Your task to perform on an android device: Open Amazon Image 0: 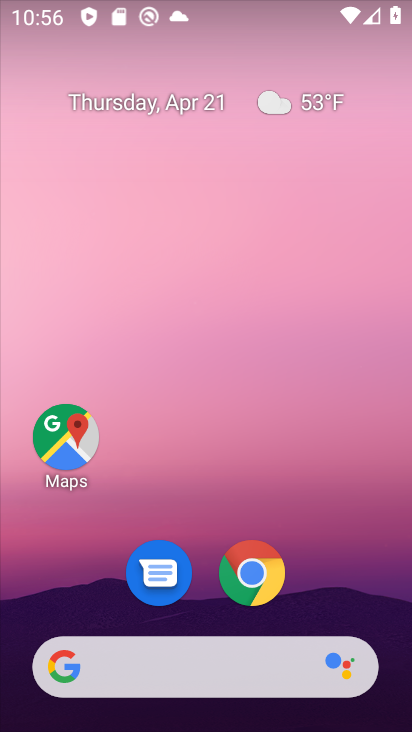
Step 0: drag from (346, 593) to (364, 81)
Your task to perform on an android device: Open Amazon Image 1: 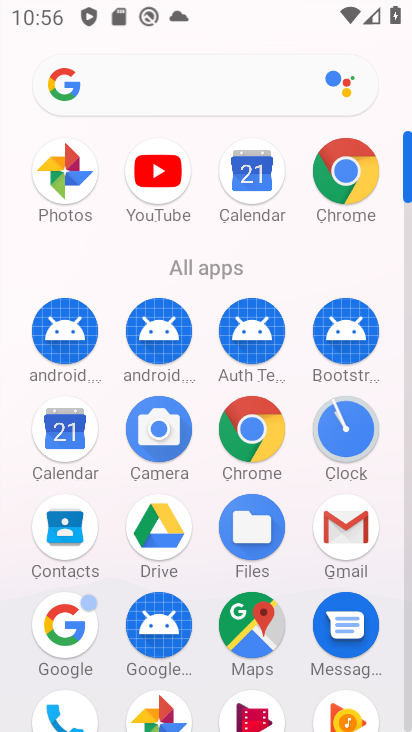
Step 1: click (250, 435)
Your task to perform on an android device: Open Amazon Image 2: 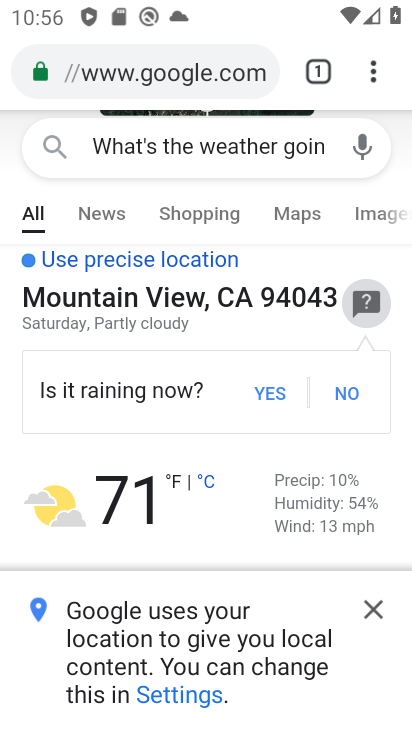
Step 2: drag from (373, 73) to (11, 257)
Your task to perform on an android device: Open Amazon Image 3: 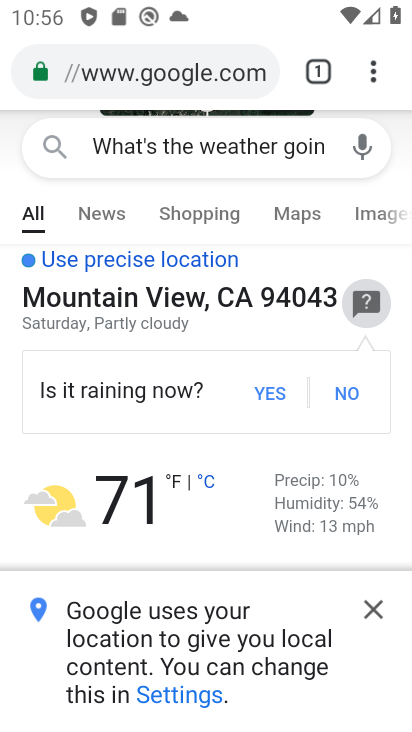
Step 3: drag from (381, 82) to (132, 143)
Your task to perform on an android device: Open Amazon Image 4: 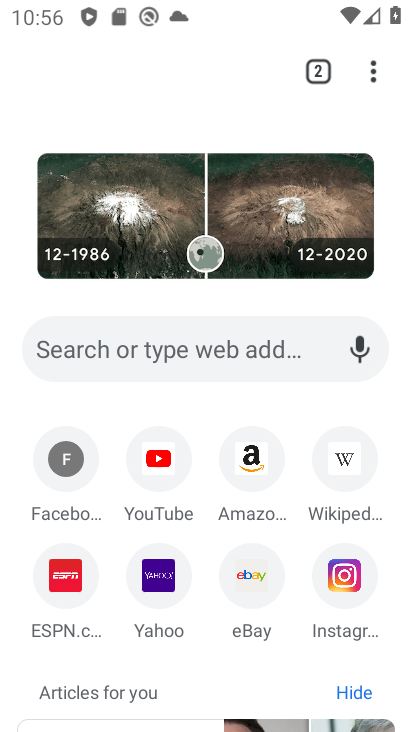
Step 4: click (247, 453)
Your task to perform on an android device: Open Amazon Image 5: 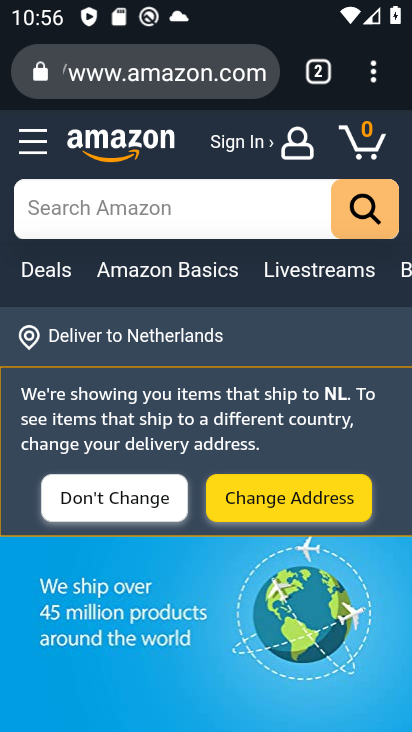
Step 5: task complete